Your task to perform on an android device: View the shopping cart on walmart.com. Add "bose soundlink" to the cart on walmart.com Image 0: 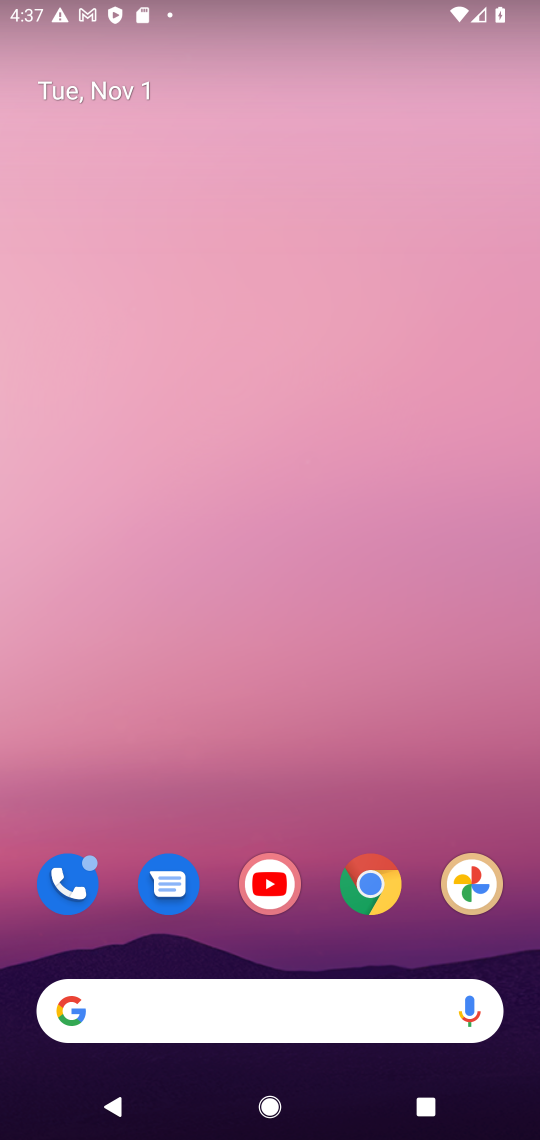
Step 0: click (364, 886)
Your task to perform on an android device: View the shopping cart on walmart.com. Add "bose soundlink" to the cart on walmart.com Image 1: 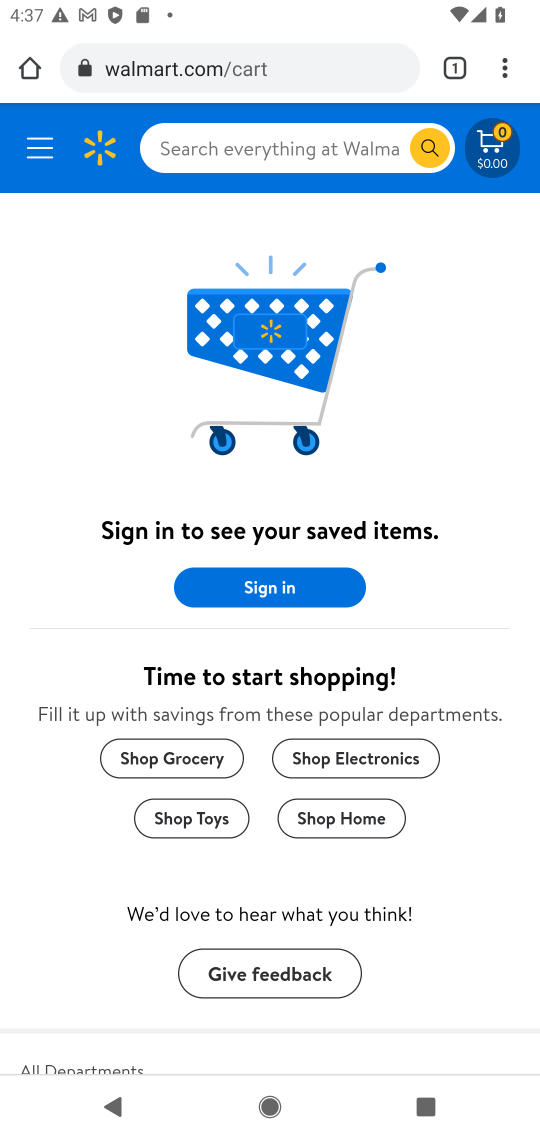
Step 1: click (330, 150)
Your task to perform on an android device: View the shopping cart on walmart.com. Add "bose soundlink" to the cart on walmart.com Image 2: 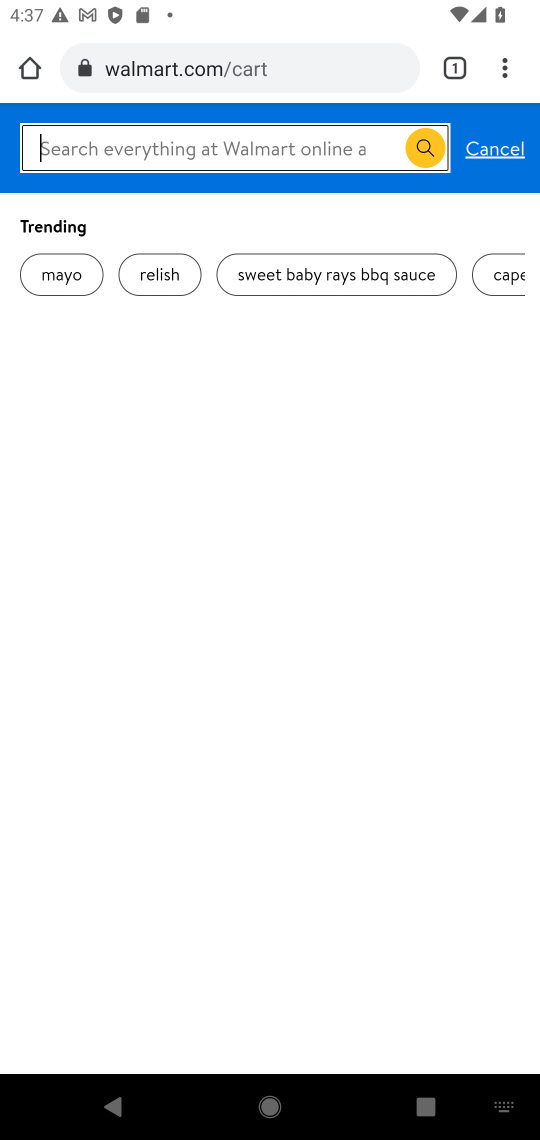
Step 2: click (299, 534)
Your task to perform on an android device: View the shopping cart on walmart.com. Add "bose soundlink" to the cart on walmart.com Image 3: 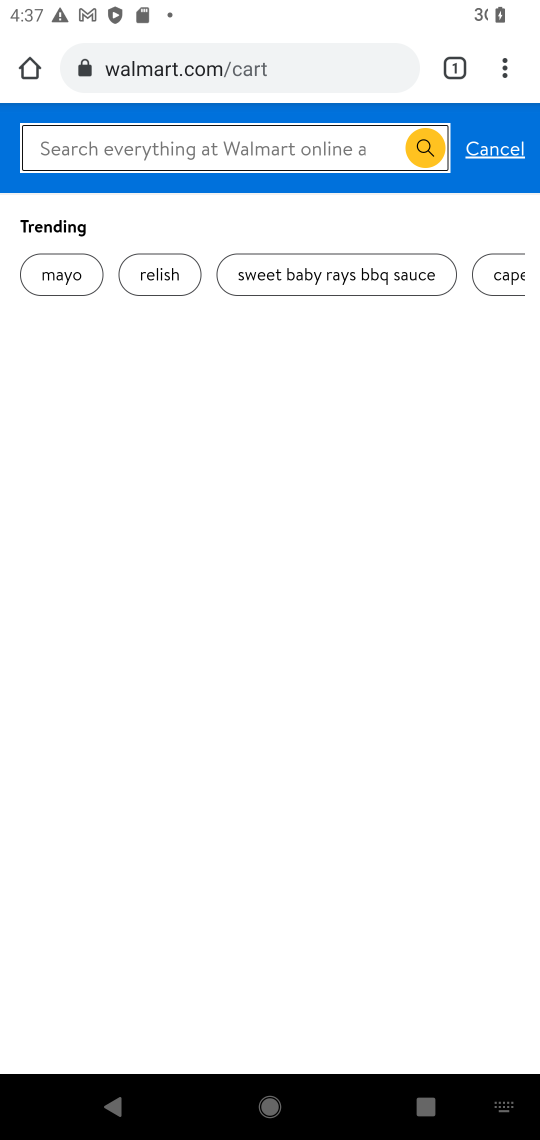
Step 3: click (499, 159)
Your task to perform on an android device: View the shopping cart on walmart.com. Add "bose soundlink" to the cart on walmart.com Image 4: 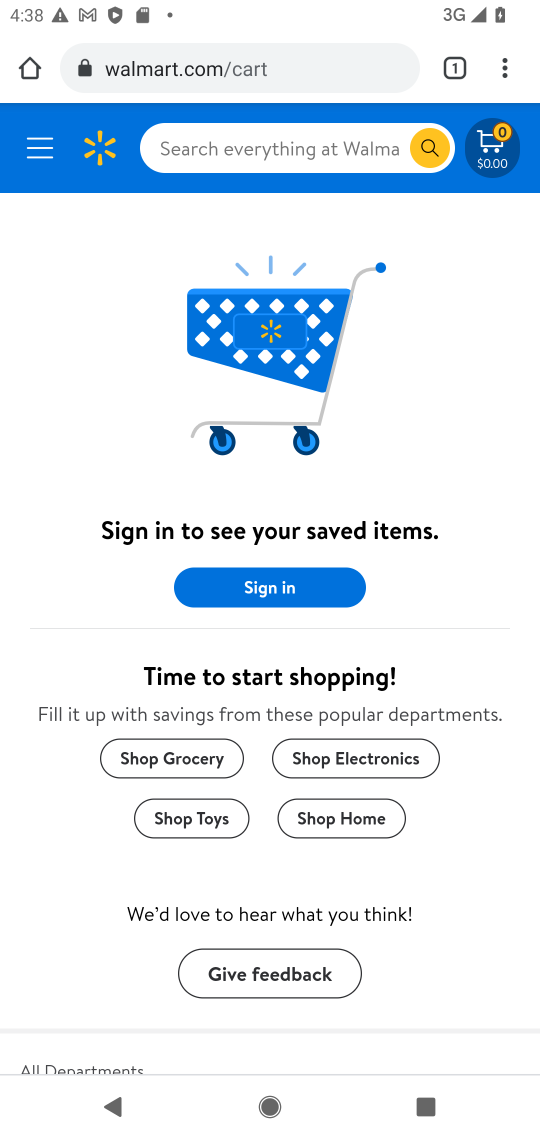
Step 4: click (478, 154)
Your task to perform on an android device: View the shopping cart on walmart.com. Add "bose soundlink" to the cart on walmart.com Image 5: 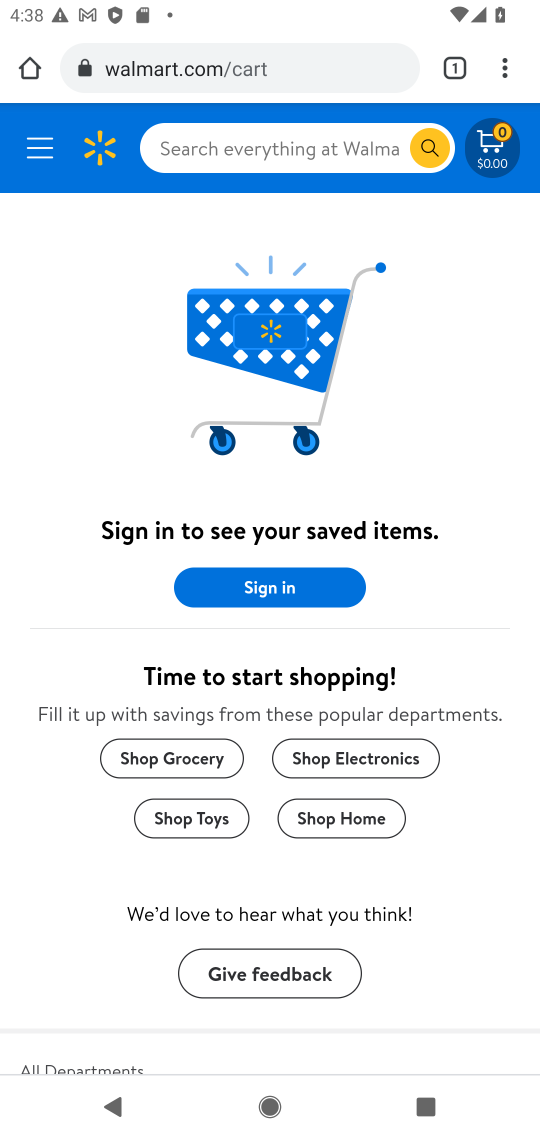
Step 5: click (496, 141)
Your task to perform on an android device: View the shopping cart on walmart.com. Add "bose soundlink" to the cart on walmart.com Image 6: 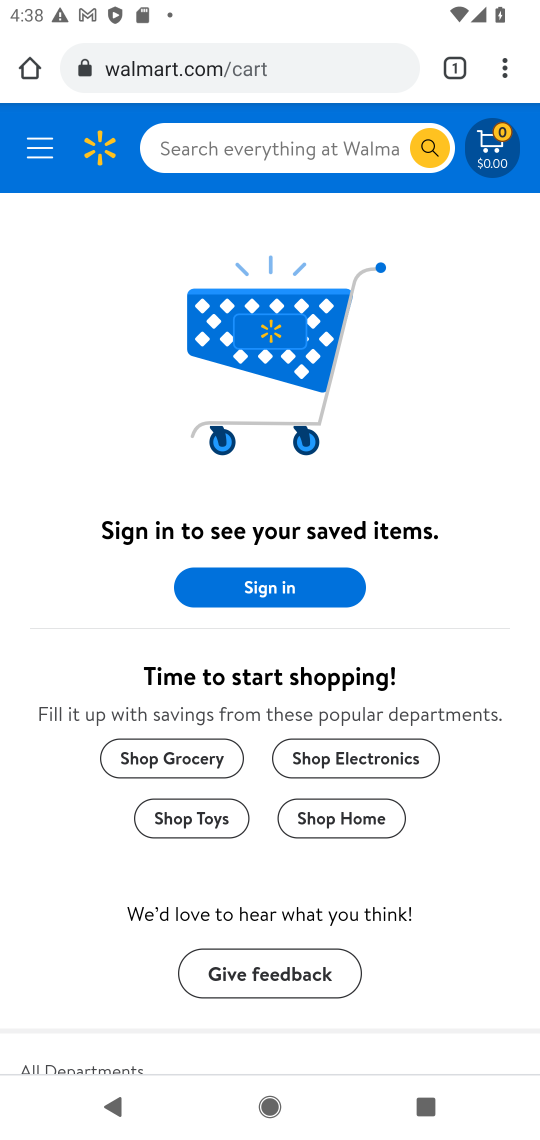
Step 6: click (323, 147)
Your task to perform on an android device: View the shopping cart on walmart.com. Add "bose soundlink" to the cart on walmart.com Image 7: 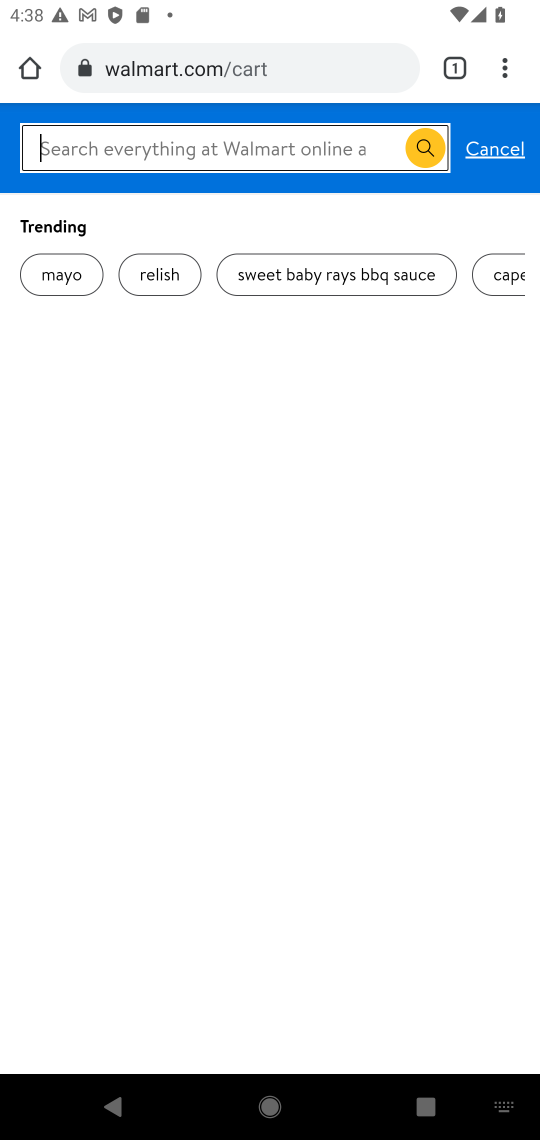
Step 7: type "shopping cart"
Your task to perform on an android device: View the shopping cart on walmart.com. Add "bose soundlink" to the cart on walmart.com Image 8: 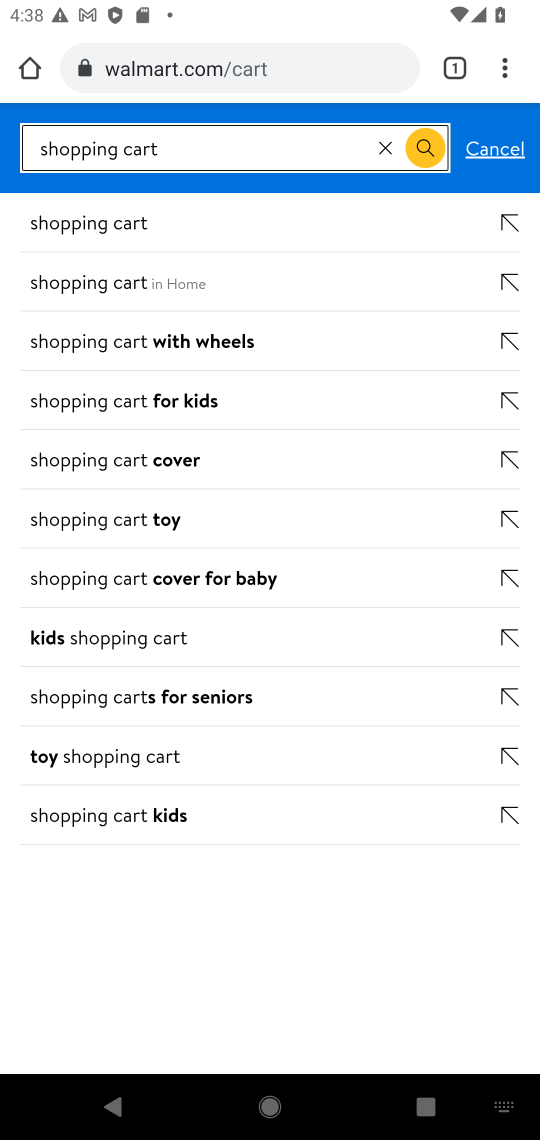
Step 8: click (382, 155)
Your task to perform on an android device: View the shopping cart on walmart.com. Add "bose soundlink" to the cart on walmart.com Image 9: 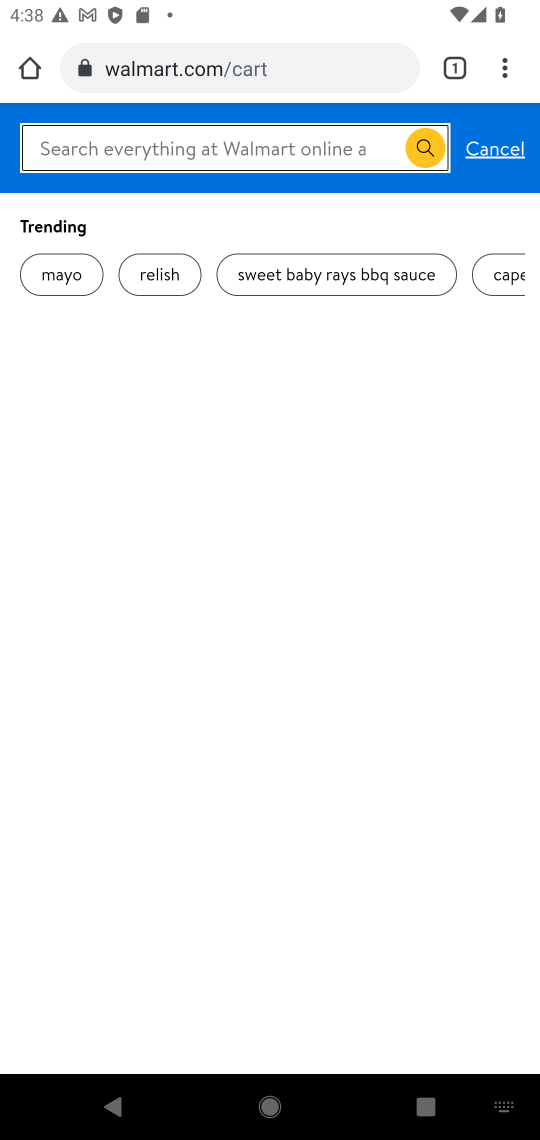
Step 9: type "bose soundlink"
Your task to perform on an android device: View the shopping cart on walmart.com. Add "bose soundlink" to the cart on walmart.com Image 10: 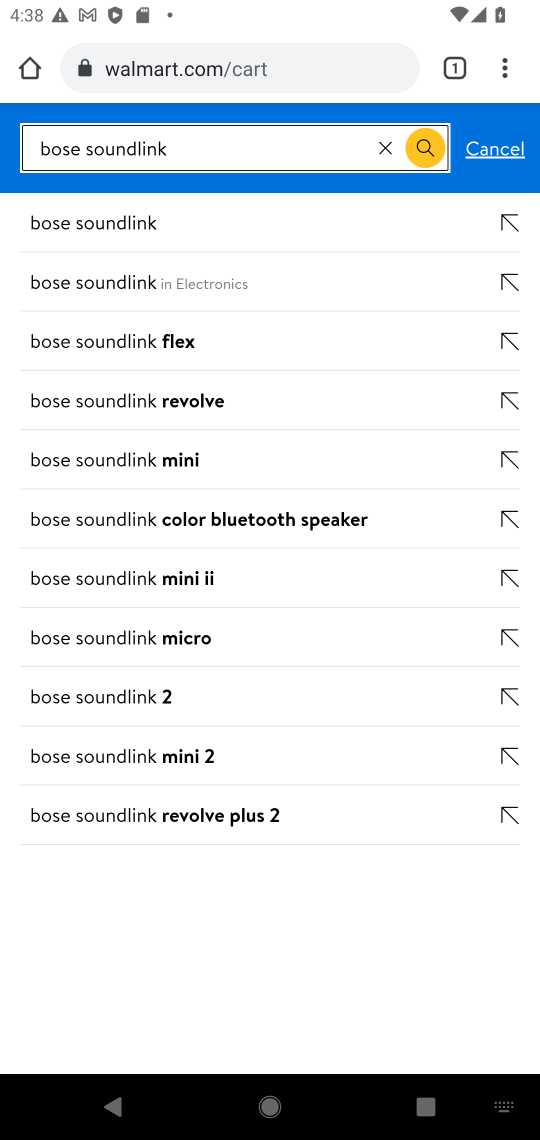
Step 10: click (76, 228)
Your task to perform on an android device: View the shopping cart on walmart.com. Add "bose soundlink" to the cart on walmart.com Image 11: 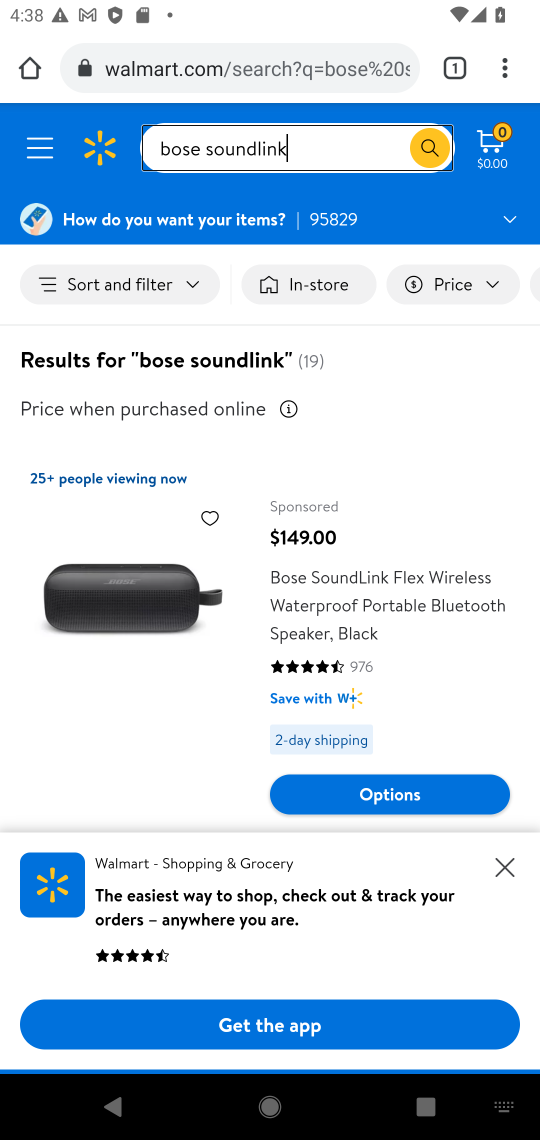
Step 11: click (502, 864)
Your task to perform on an android device: View the shopping cart on walmart.com. Add "bose soundlink" to the cart on walmart.com Image 12: 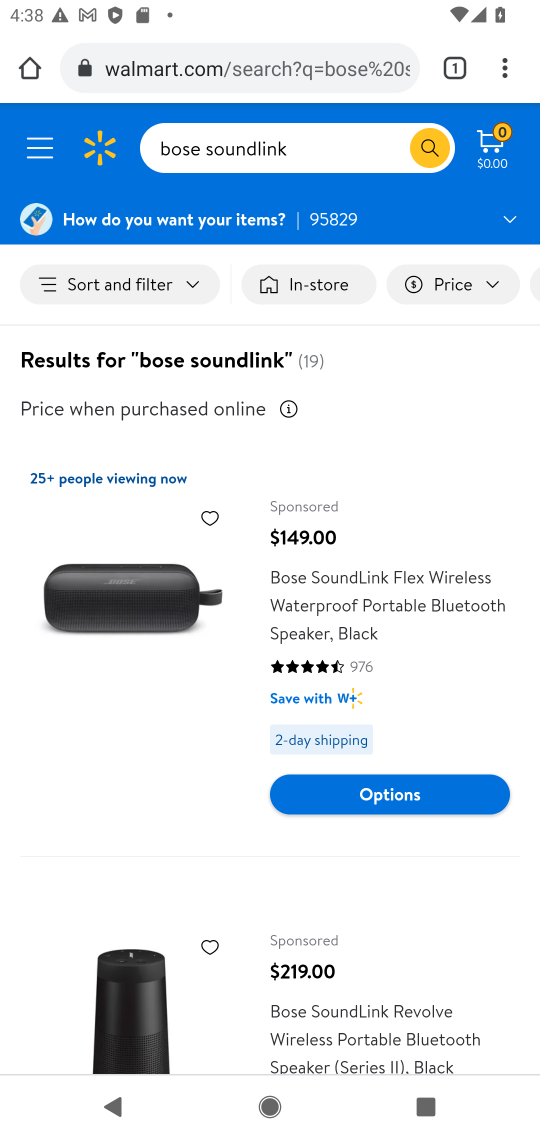
Step 12: click (310, 559)
Your task to perform on an android device: View the shopping cart on walmart.com. Add "bose soundlink" to the cart on walmart.com Image 13: 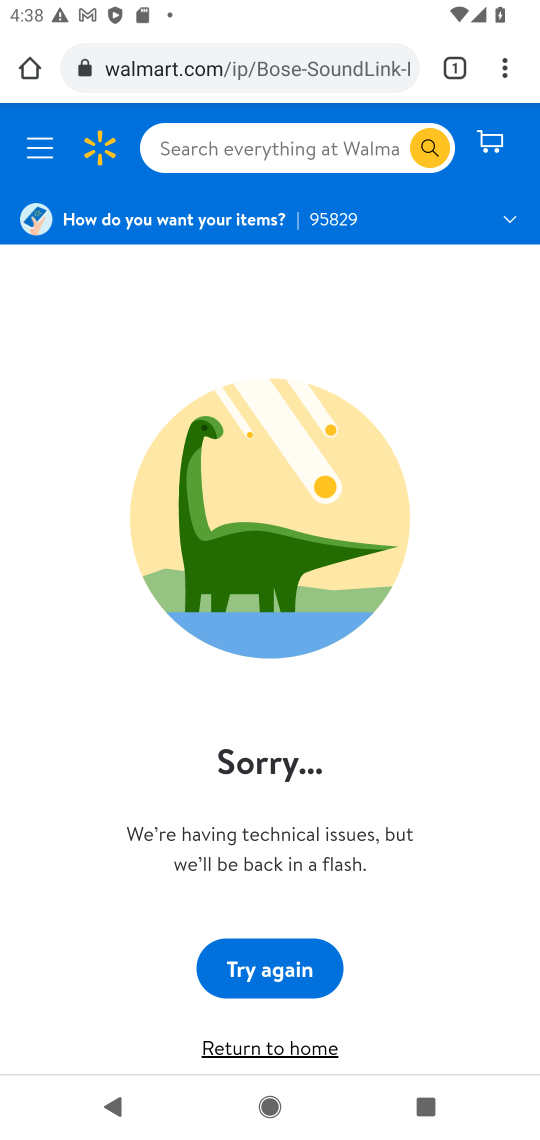
Step 13: task complete